Your task to perform on an android device: Check the news Image 0: 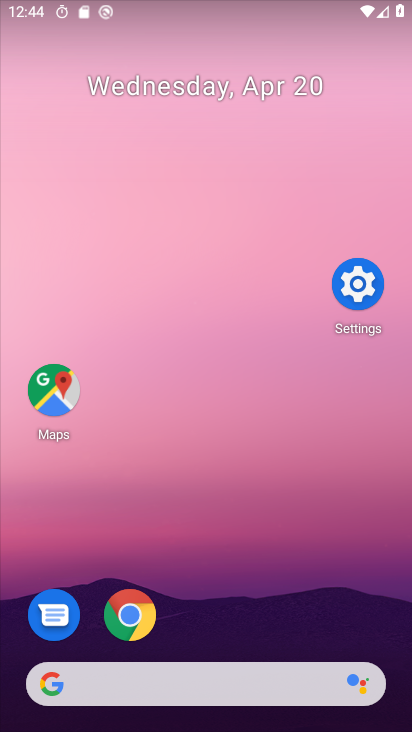
Step 0: drag from (198, 633) to (241, 124)
Your task to perform on an android device: Check the news Image 1: 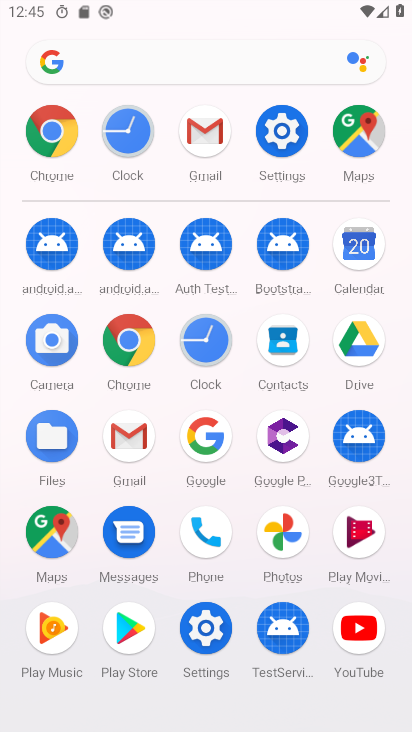
Step 1: click (127, 349)
Your task to perform on an android device: Check the news Image 2: 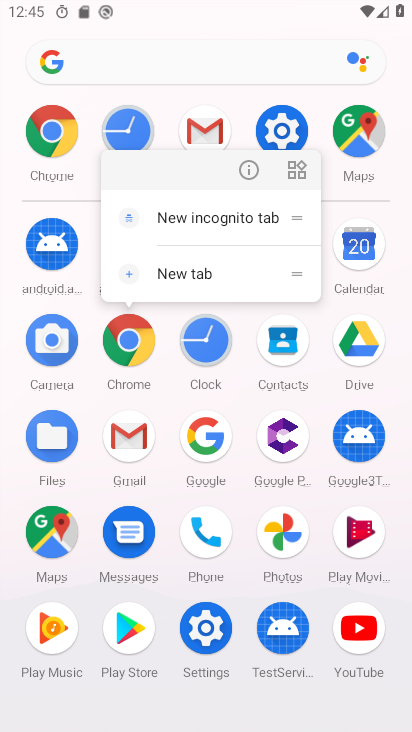
Step 2: click (255, 171)
Your task to perform on an android device: Check the news Image 3: 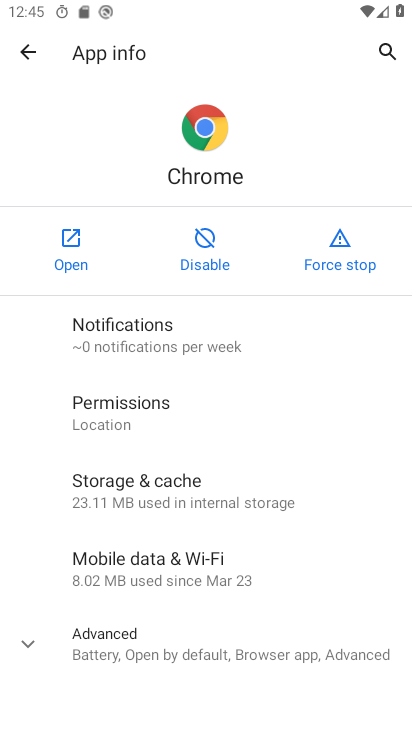
Step 3: click (75, 250)
Your task to perform on an android device: Check the news Image 4: 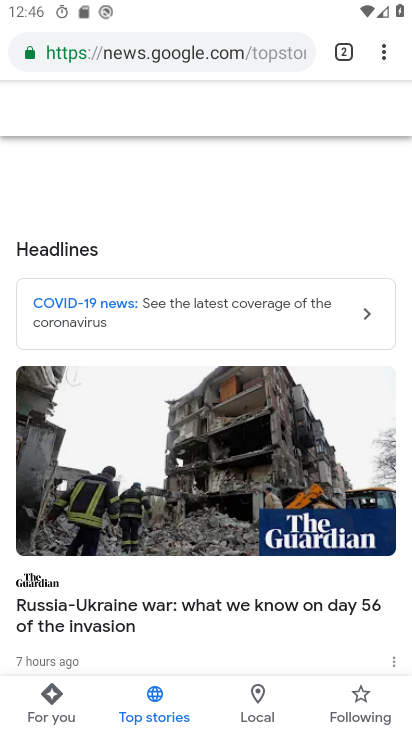
Step 4: click (387, 51)
Your task to perform on an android device: Check the news Image 5: 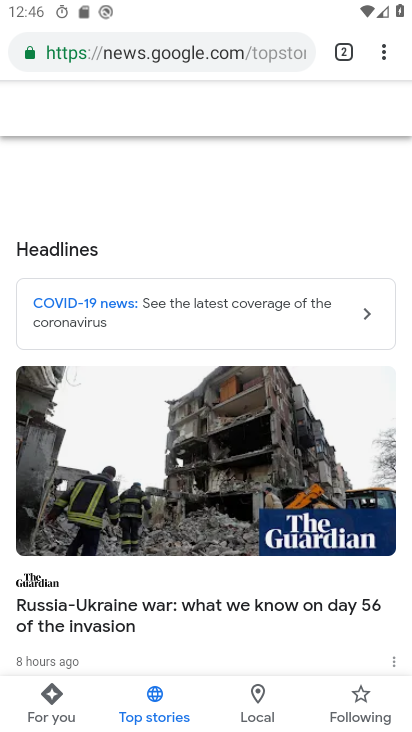
Step 5: drag from (379, 56) to (137, 165)
Your task to perform on an android device: Check the news Image 6: 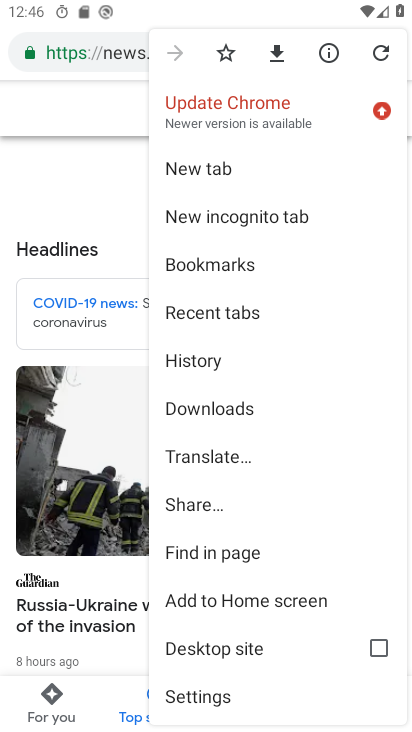
Step 6: click (121, 145)
Your task to perform on an android device: Check the news Image 7: 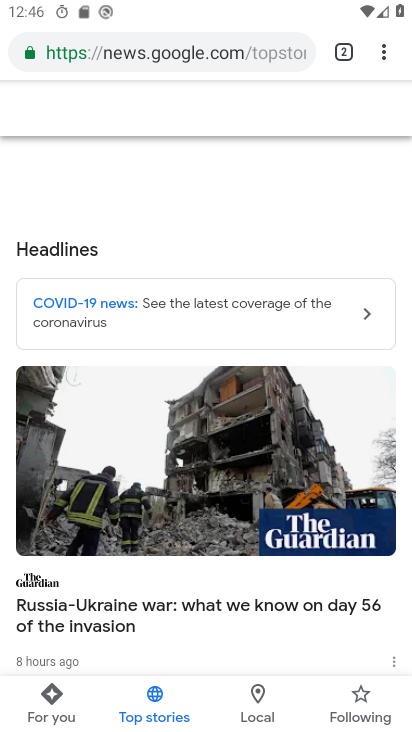
Step 7: click (211, 48)
Your task to perform on an android device: Check the news Image 8: 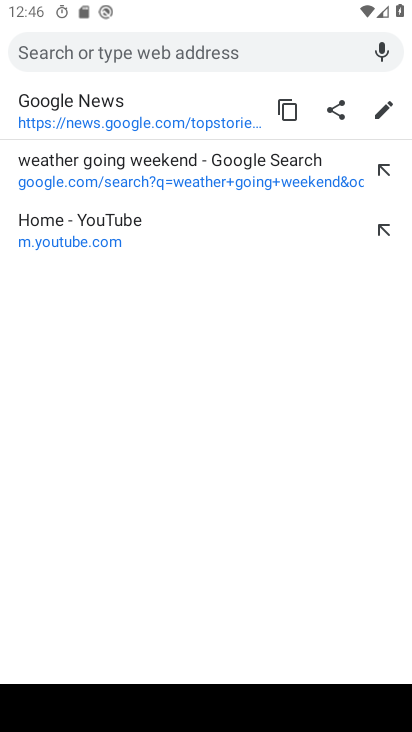
Step 8: click (79, 105)
Your task to perform on an android device: Check the news Image 9: 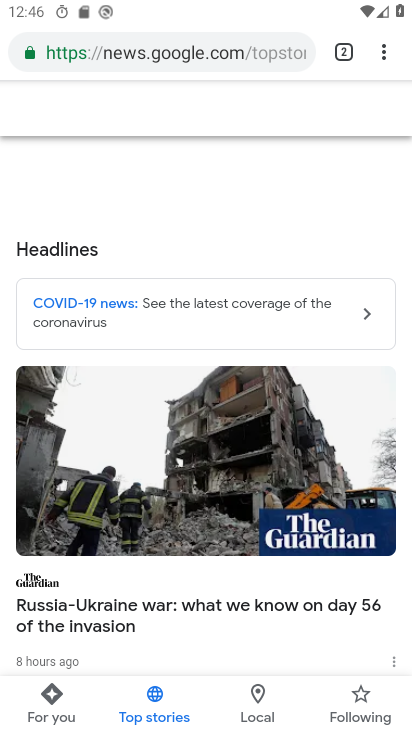
Step 9: task complete